Your task to perform on an android device: Search for "lenovo thinkpad" on ebay.com, select the first entry, and add it to the cart. Image 0: 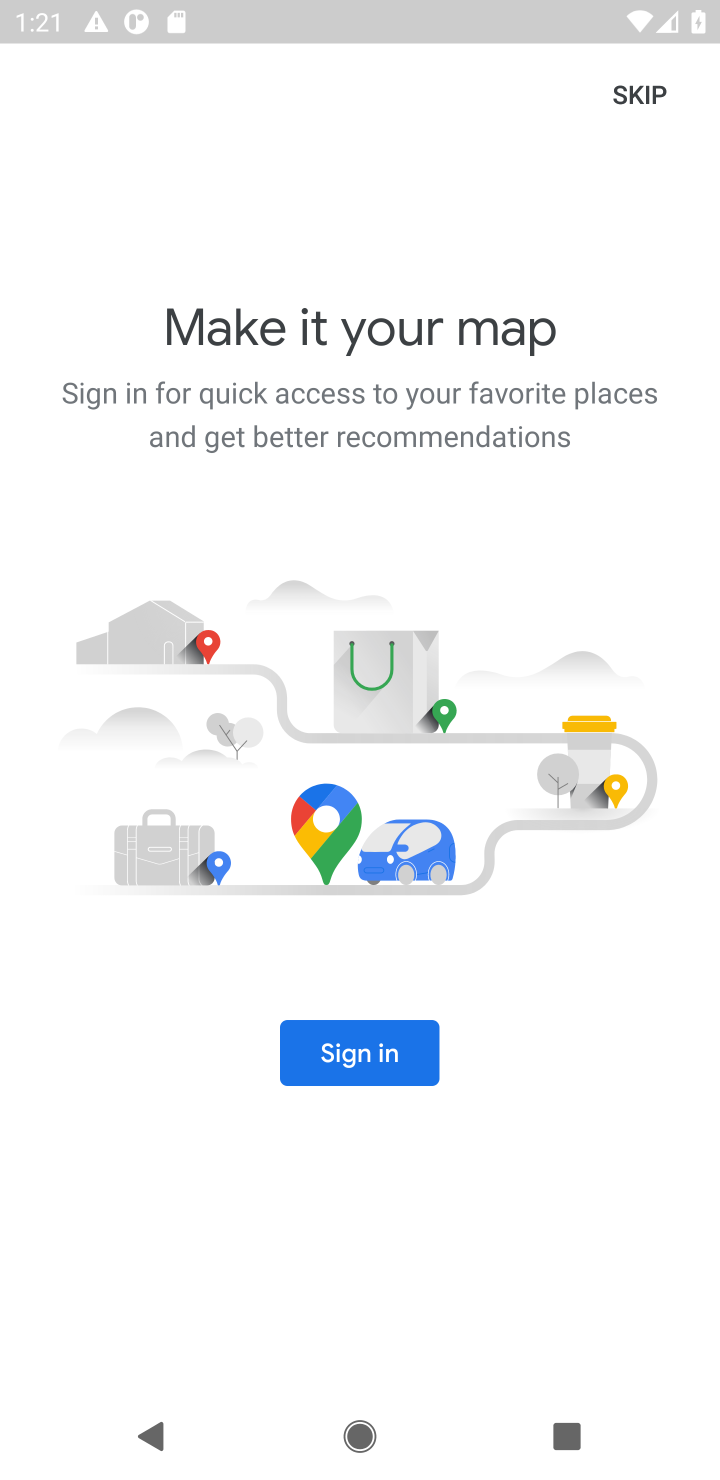
Step 0: press home button
Your task to perform on an android device: Search for "lenovo thinkpad" on ebay.com, select the first entry, and add it to the cart. Image 1: 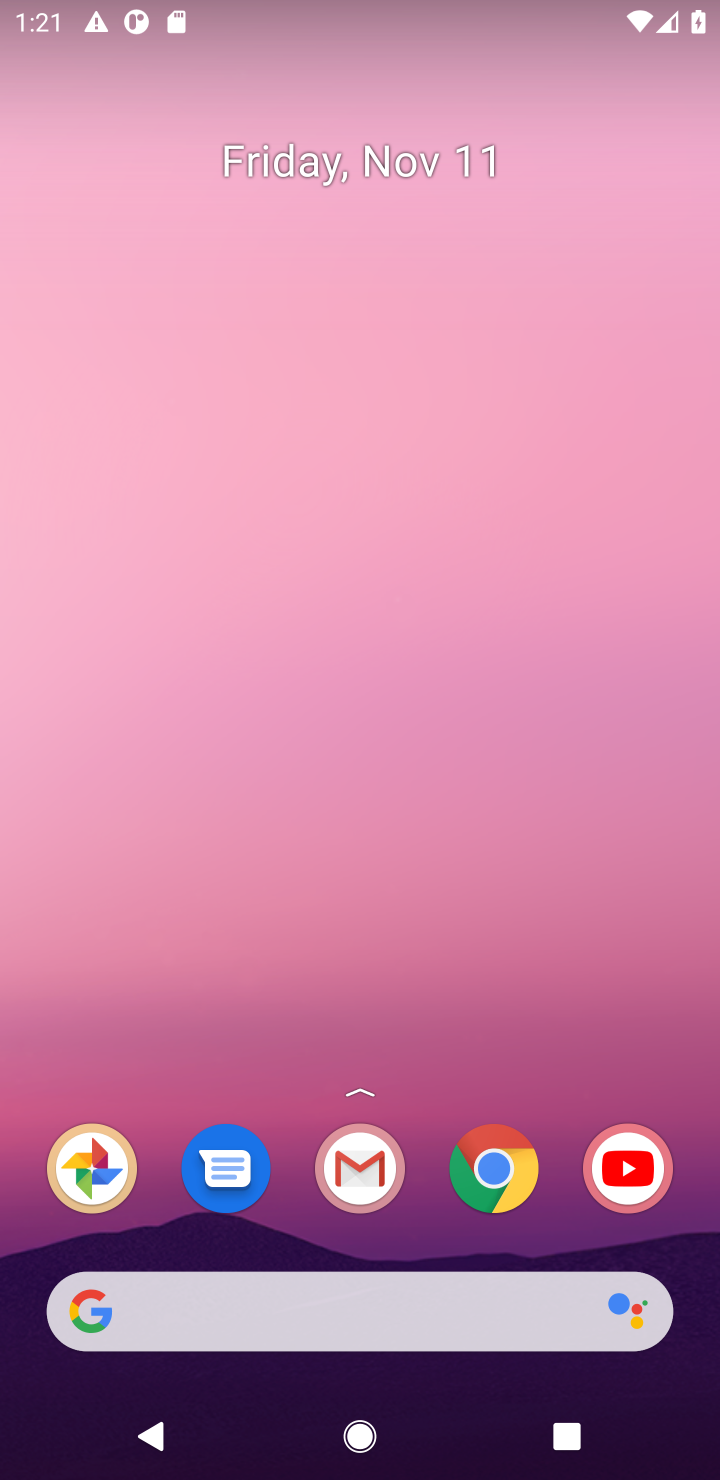
Step 1: press home button
Your task to perform on an android device: Search for "lenovo thinkpad" on ebay.com, select the first entry, and add it to the cart. Image 2: 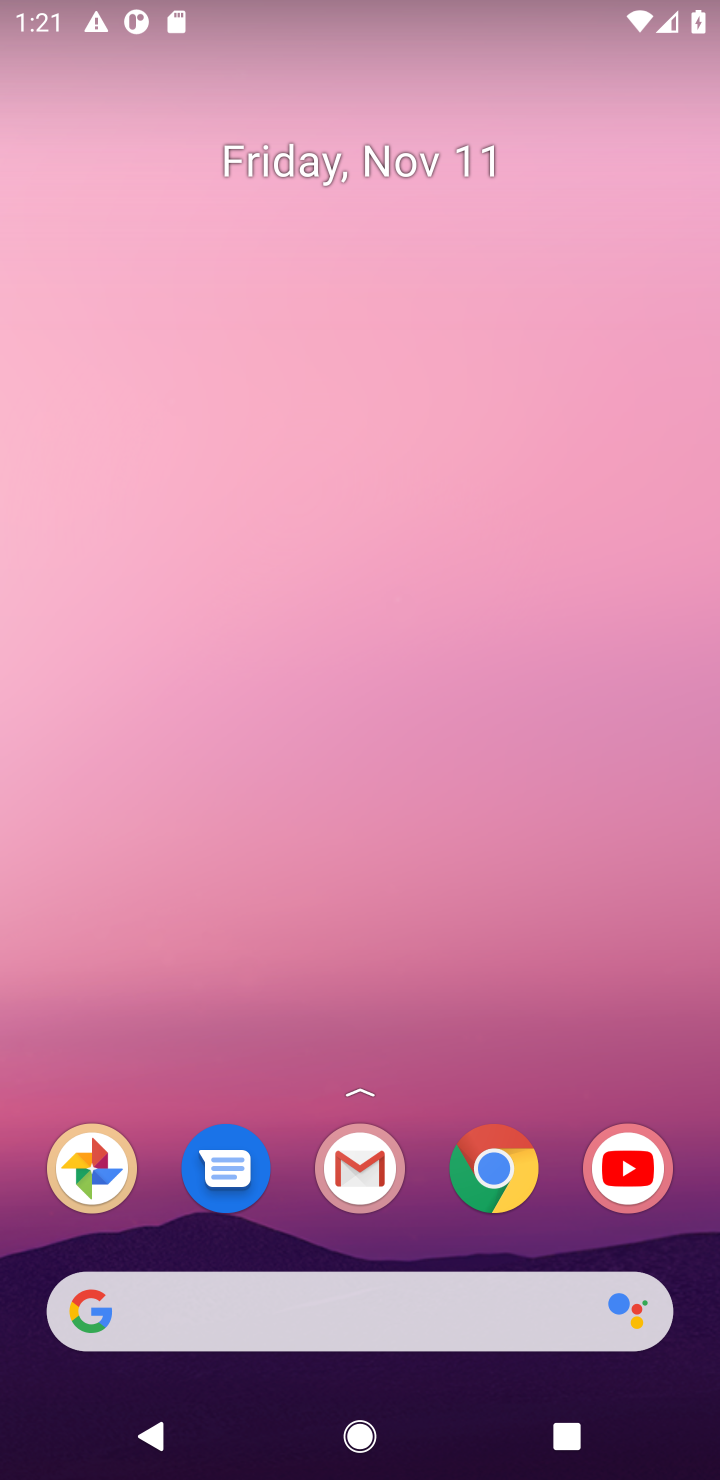
Step 2: click (510, 1177)
Your task to perform on an android device: Search for "lenovo thinkpad" on ebay.com, select the first entry, and add it to the cart. Image 3: 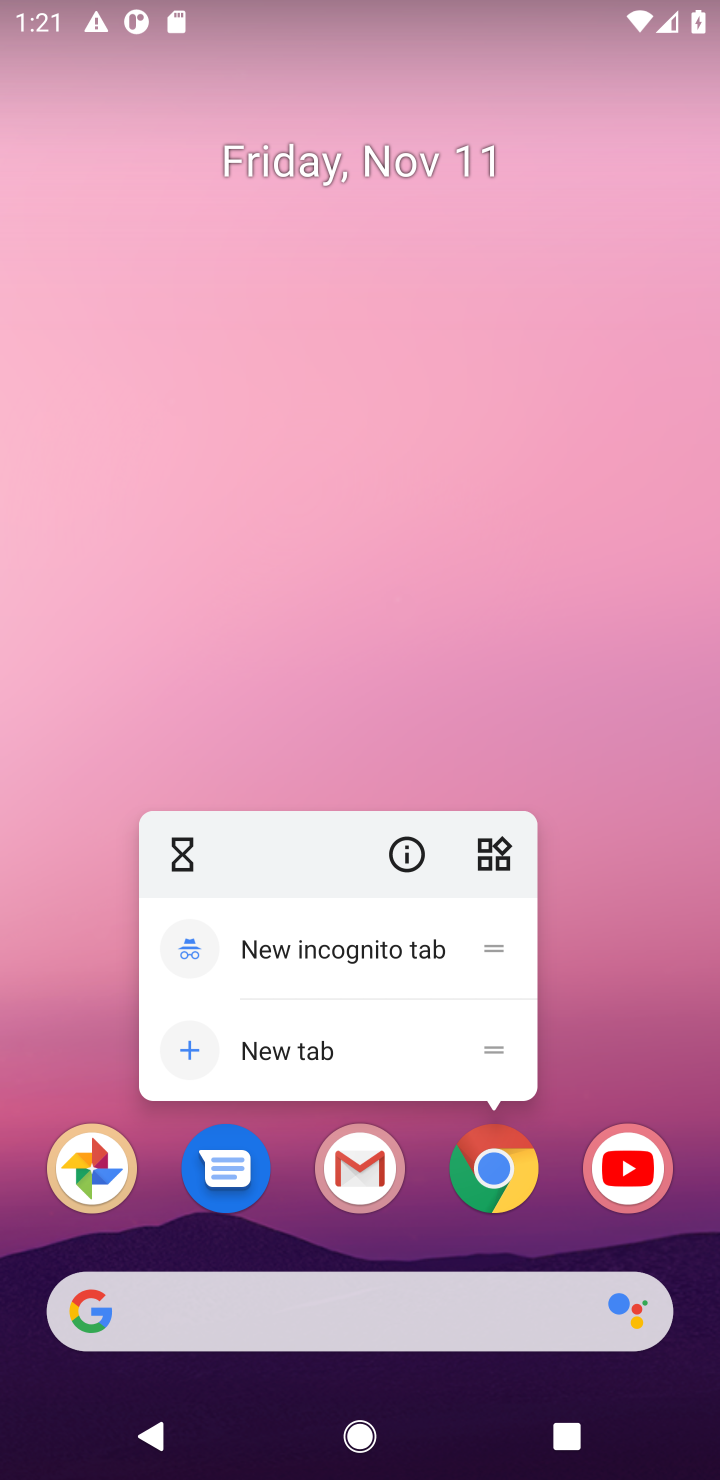
Step 3: click (510, 1177)
Your task to perform on an android device: Search for "lenovo thinkpad" on ebay.com, select the first entry, and add it to the cart. Image 4: 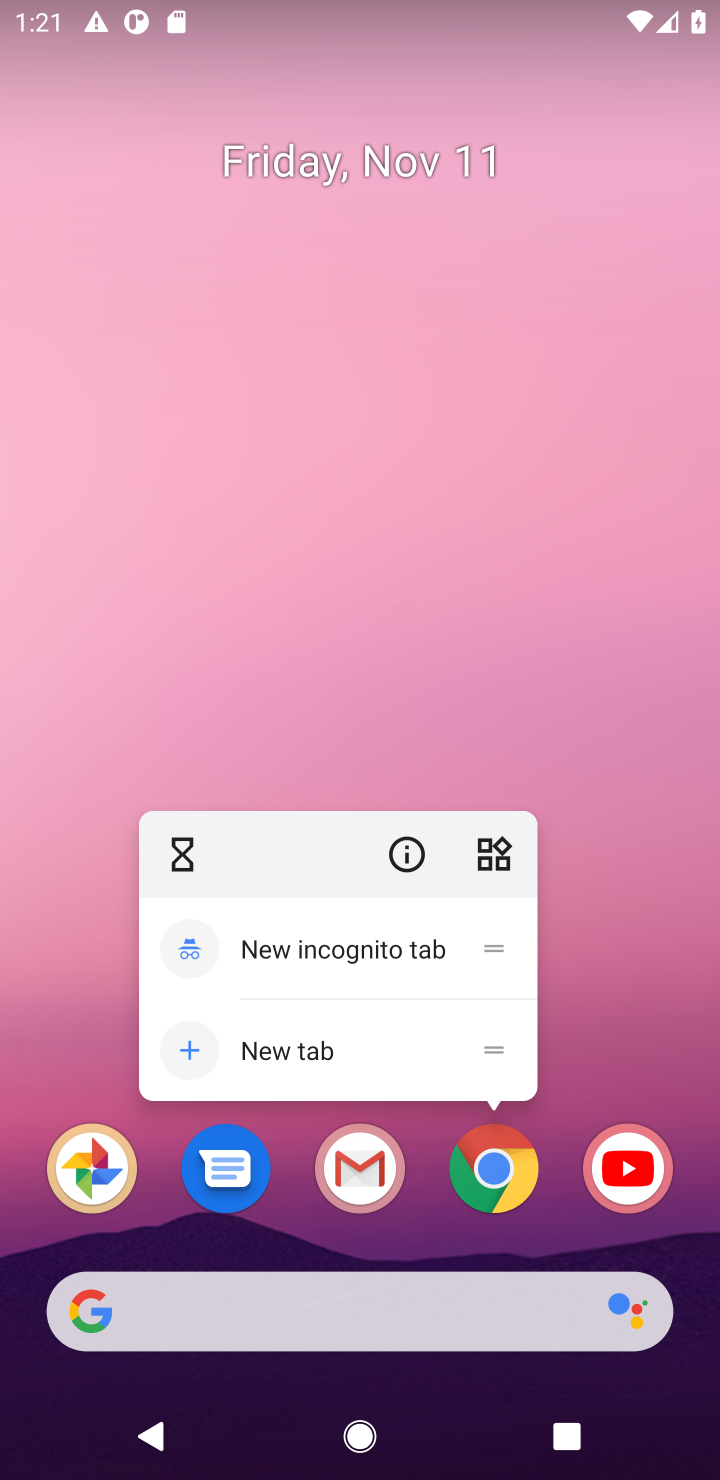
Step 4: click (503, 1182)
Your task to perform on an android device: Search for "lenovo thinkpad" on ebay.com, select the first entry, and add it to the cart. Image 5: 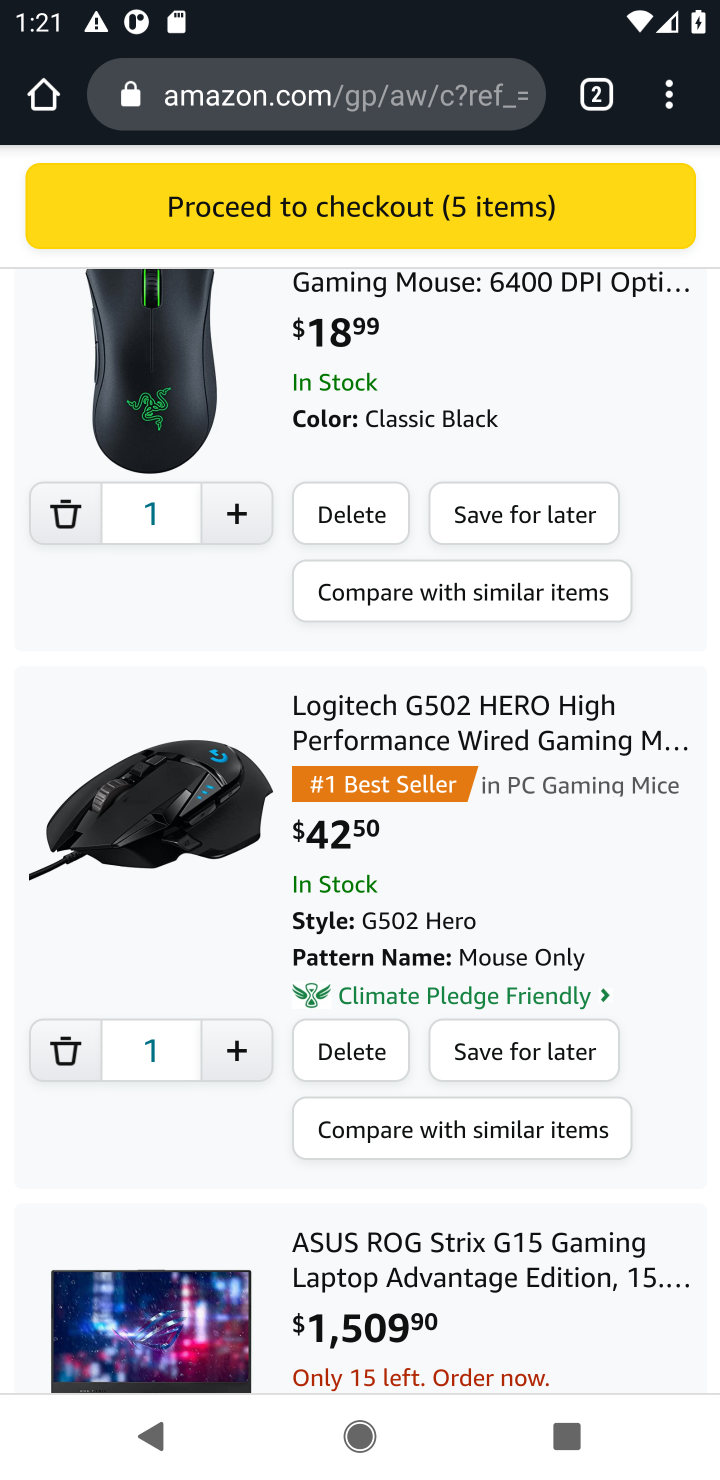
Step 5: click (314, 99)
Your task to perform on an android device: Search for "lenovo thinkpad" on ebay.com, select the first entry, and add it to the cart. Image 6: 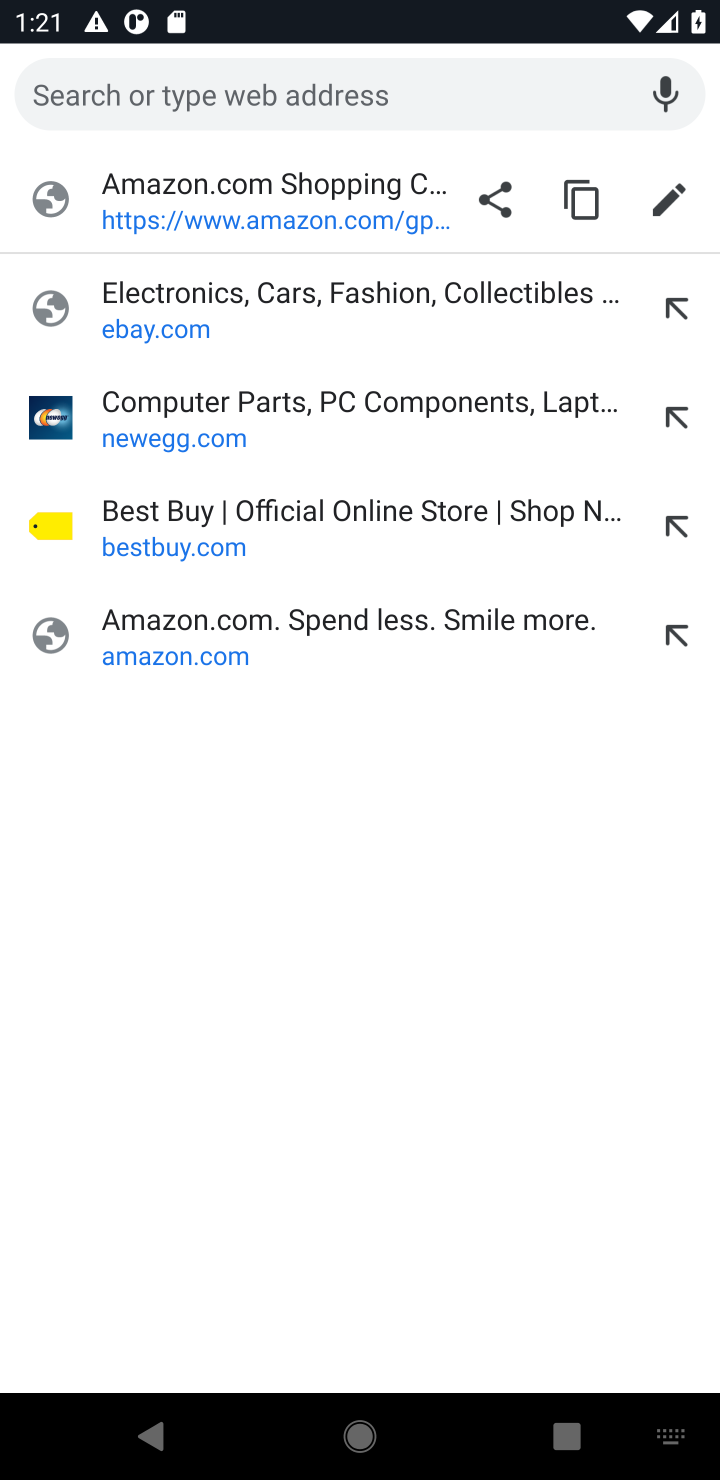
Step 6: click (158, 300)
Your task to perform on an android device: Search for "lenovo thinkpad" on ebay.com, select the first entry, and add it to the cart. Image 7: 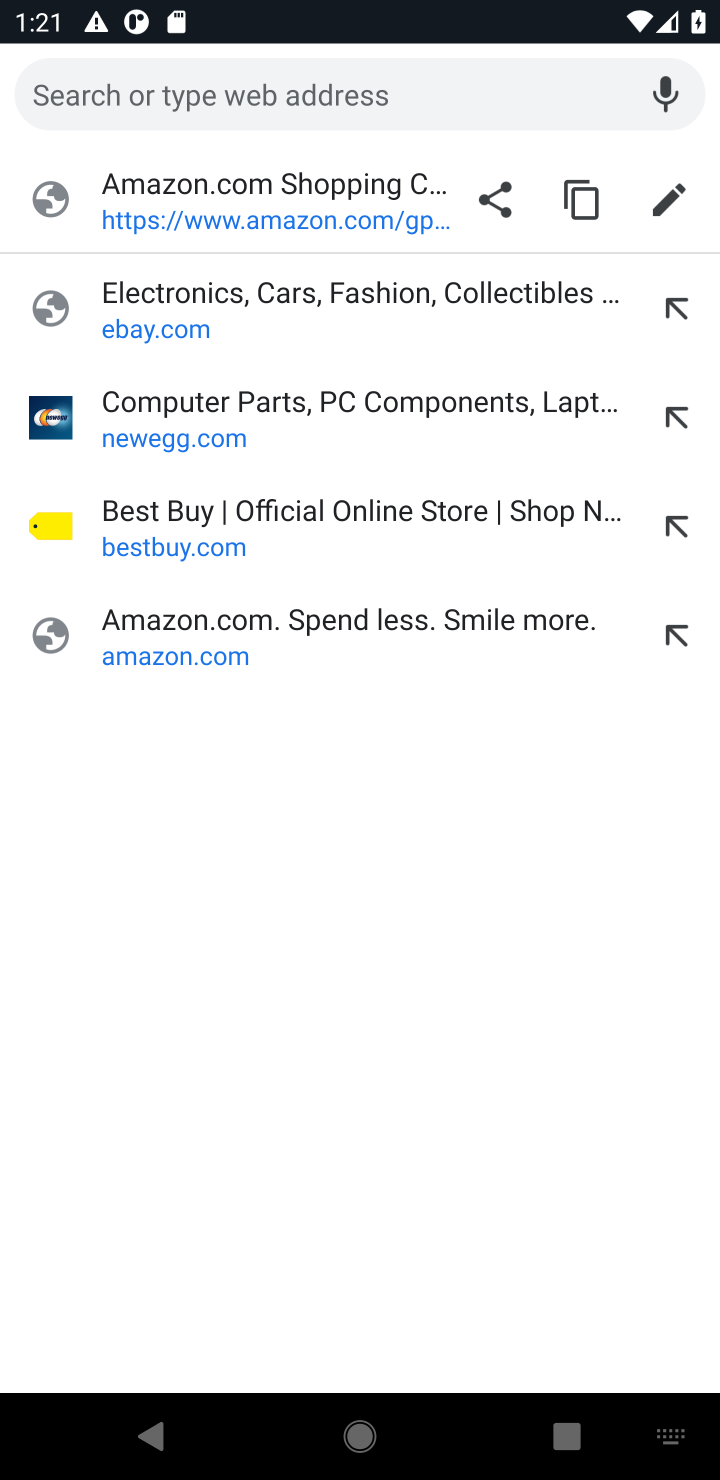
Step 7: click (151, 332)
Your task to perform on an android device: Search for "lenovo thinkpad" on ebay.com, select the first entry, and add it to the cart. Image 8: 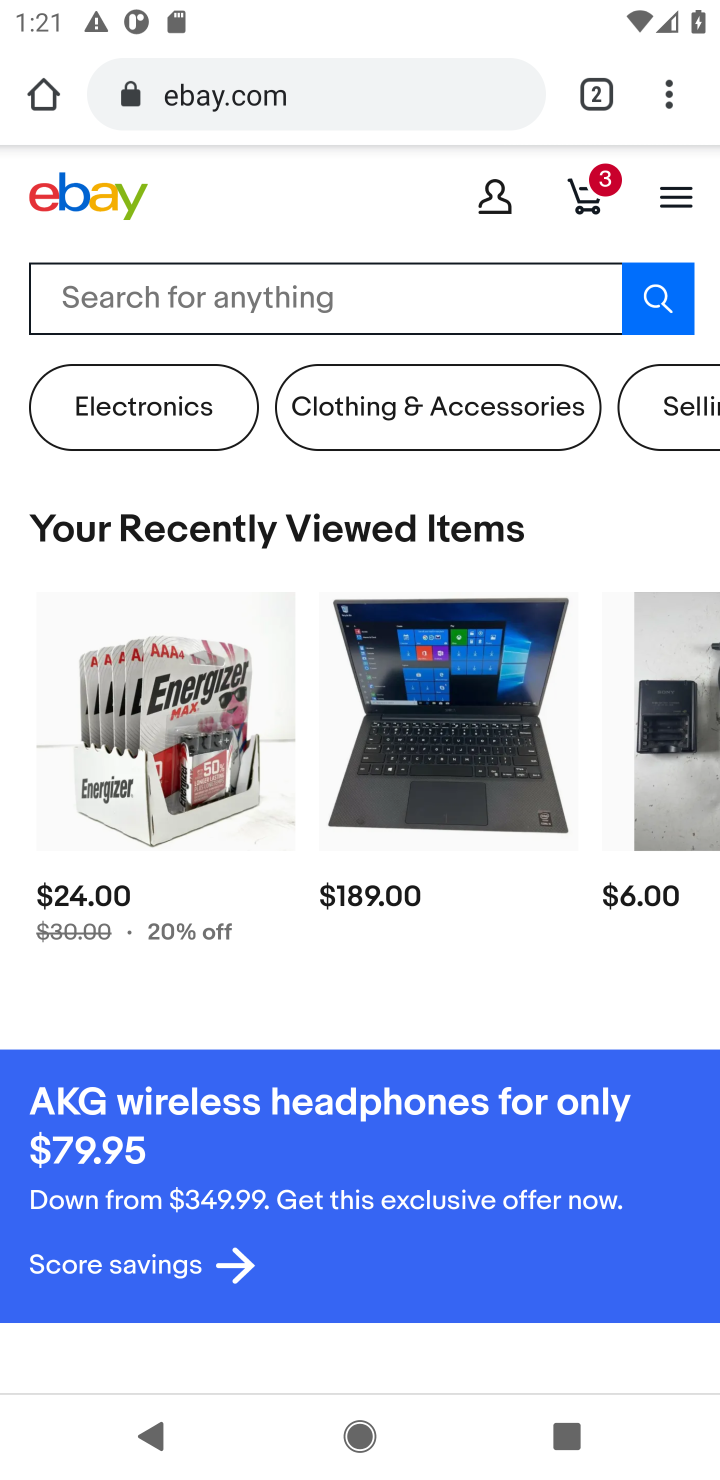
Step 8: click (149, 295)
Your task to perform on an android device: Search for "lenovo thinkpad" on ebay.com, select the first entry, and add it to the cart. Image 9: 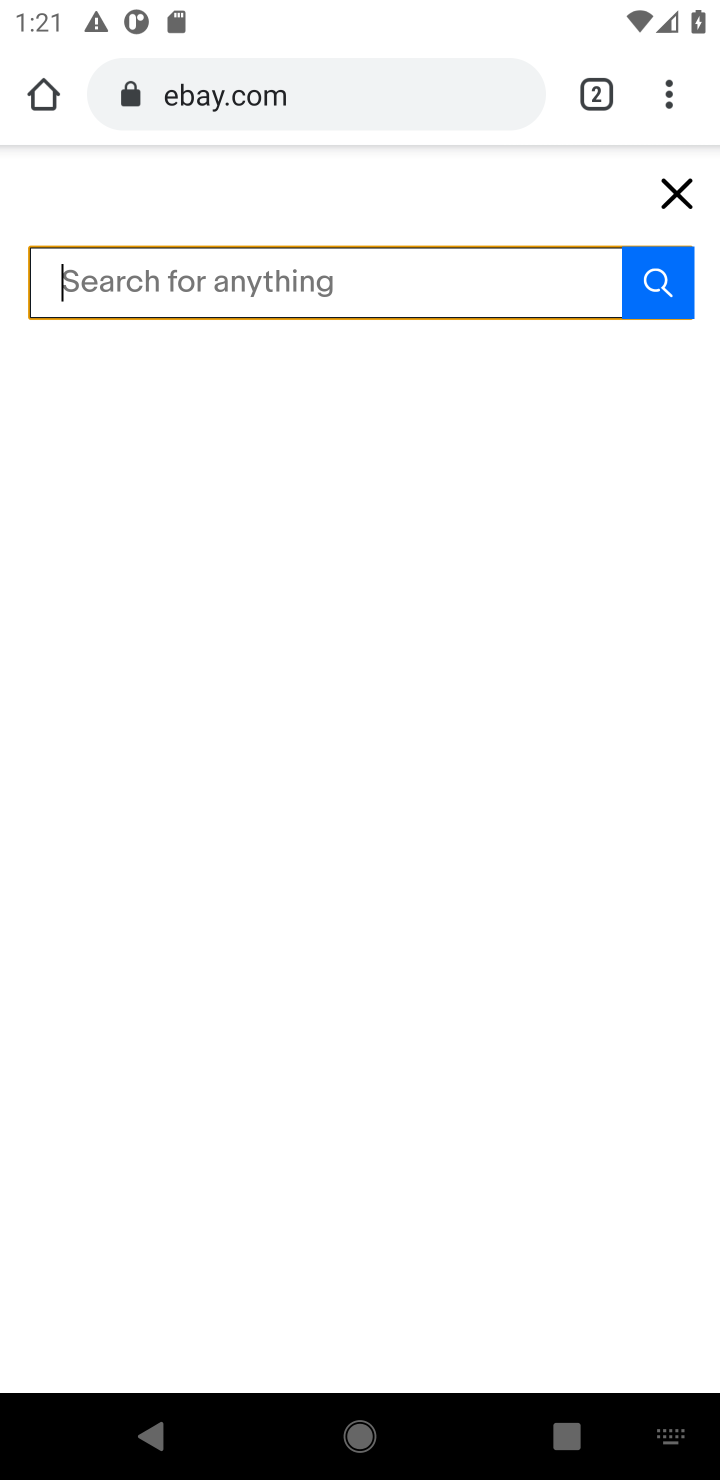
Step 9: type "lenovo thinkpad"
Your task to perform on an android device: Search for "lenovo thinkpad" on ebay.com, select the first entry, and add it to the cart. Image 10: 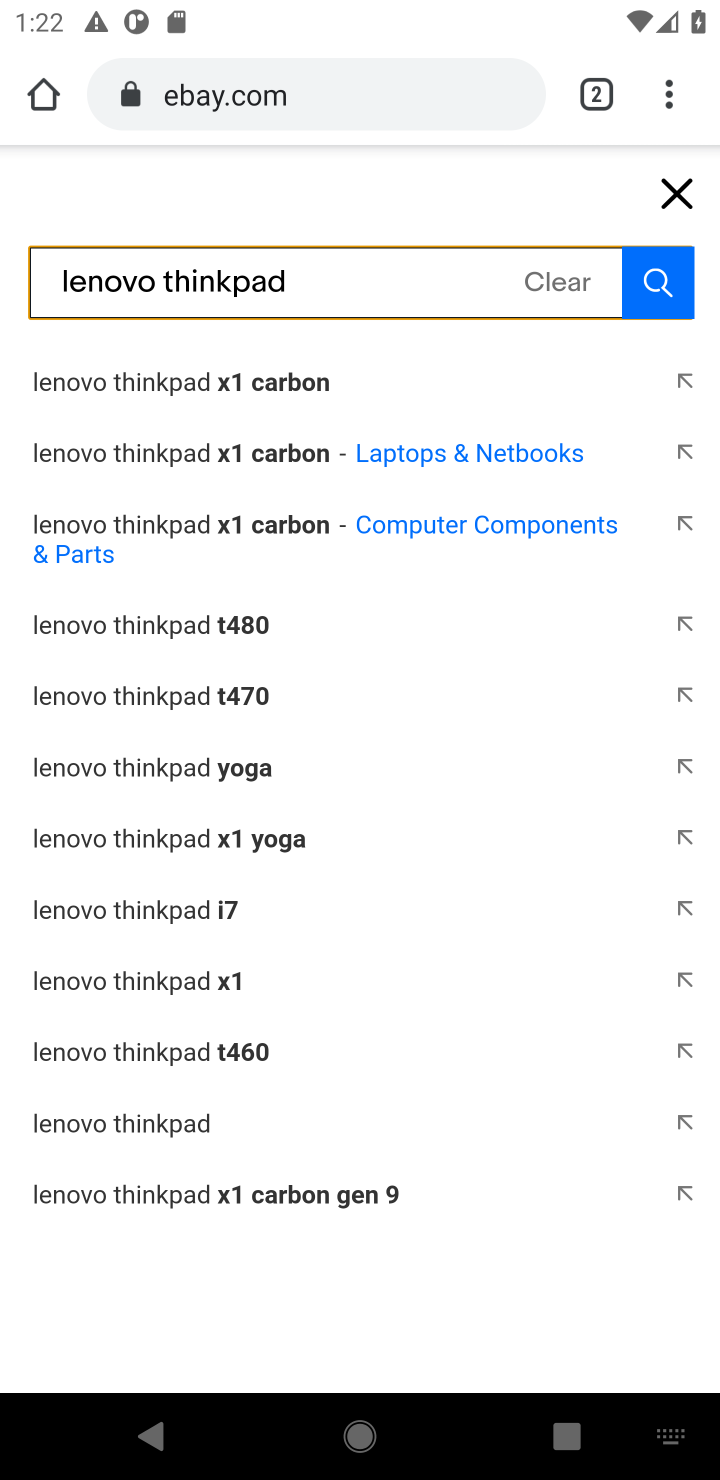
Step 10: click (82, 1135)
Your task to perform on an android device: Search for "lenovo thinkpad" on ebay.com, select the first entry, and add it to the cart. Image 11: 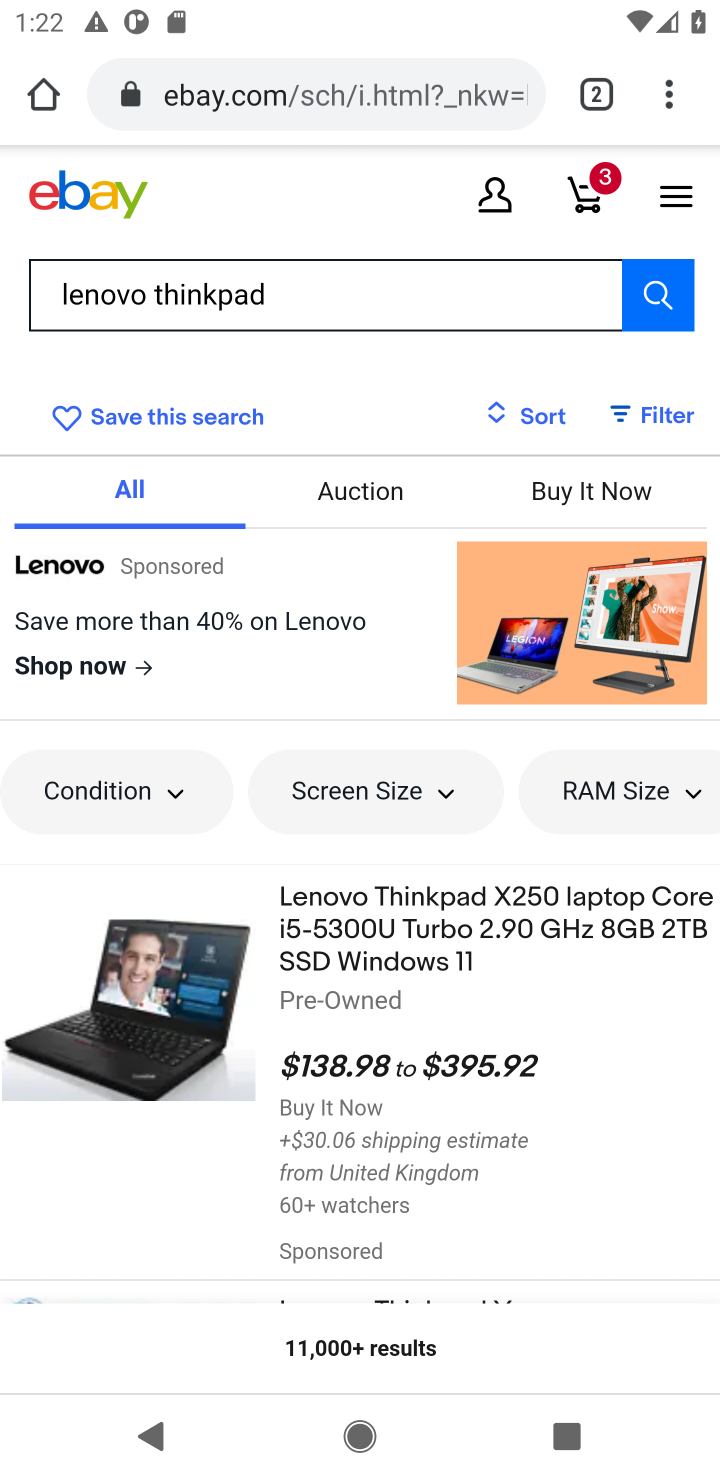
Step 11: drag from (254, 977) to (262, 600)
Your task to perform on an android device: Search for "lenovo thinkpad" on ebay.com, select the first entry, and add it to the cart. Image 12: 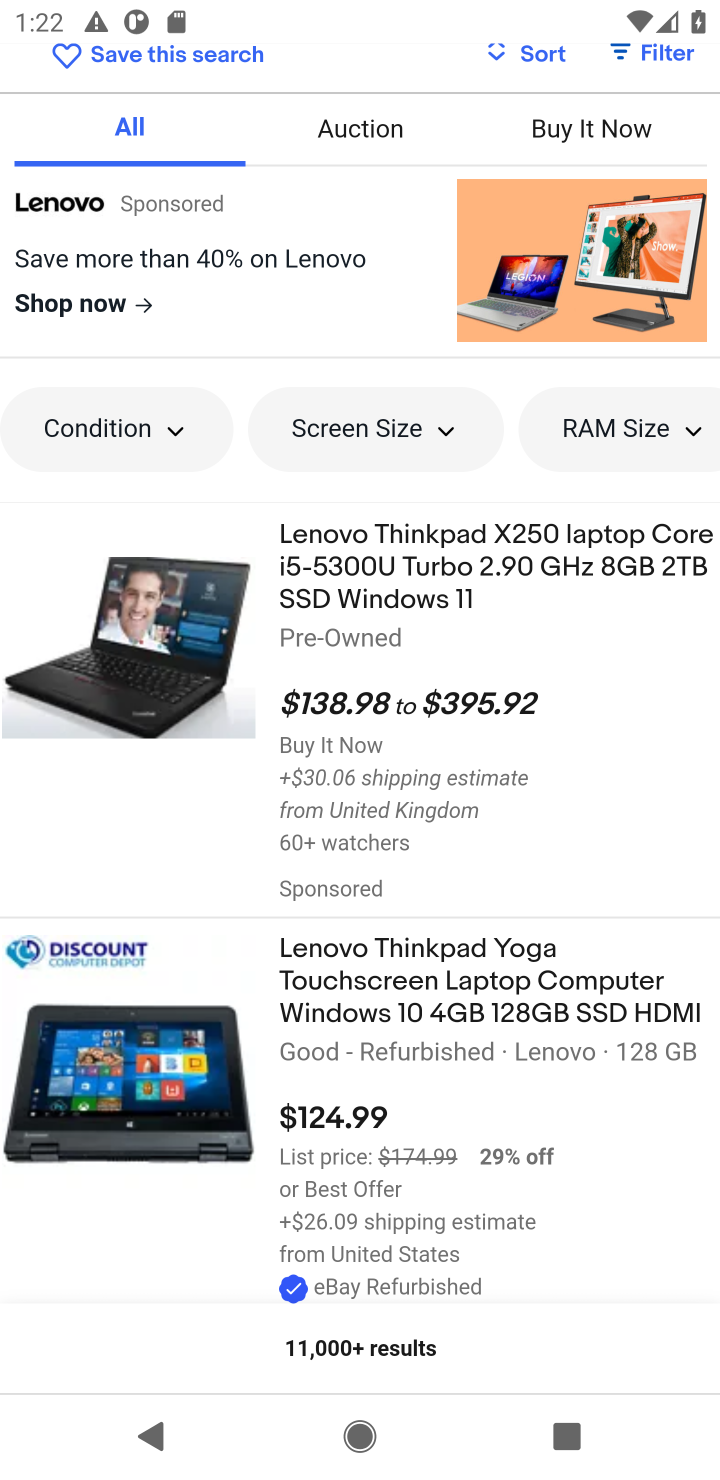
Step 12: click (136, 734)
Your task to perform on an android device: Search for "lenovo thinkpad" on ebay.com, select the first entry, and add it to the cart. Image 13: 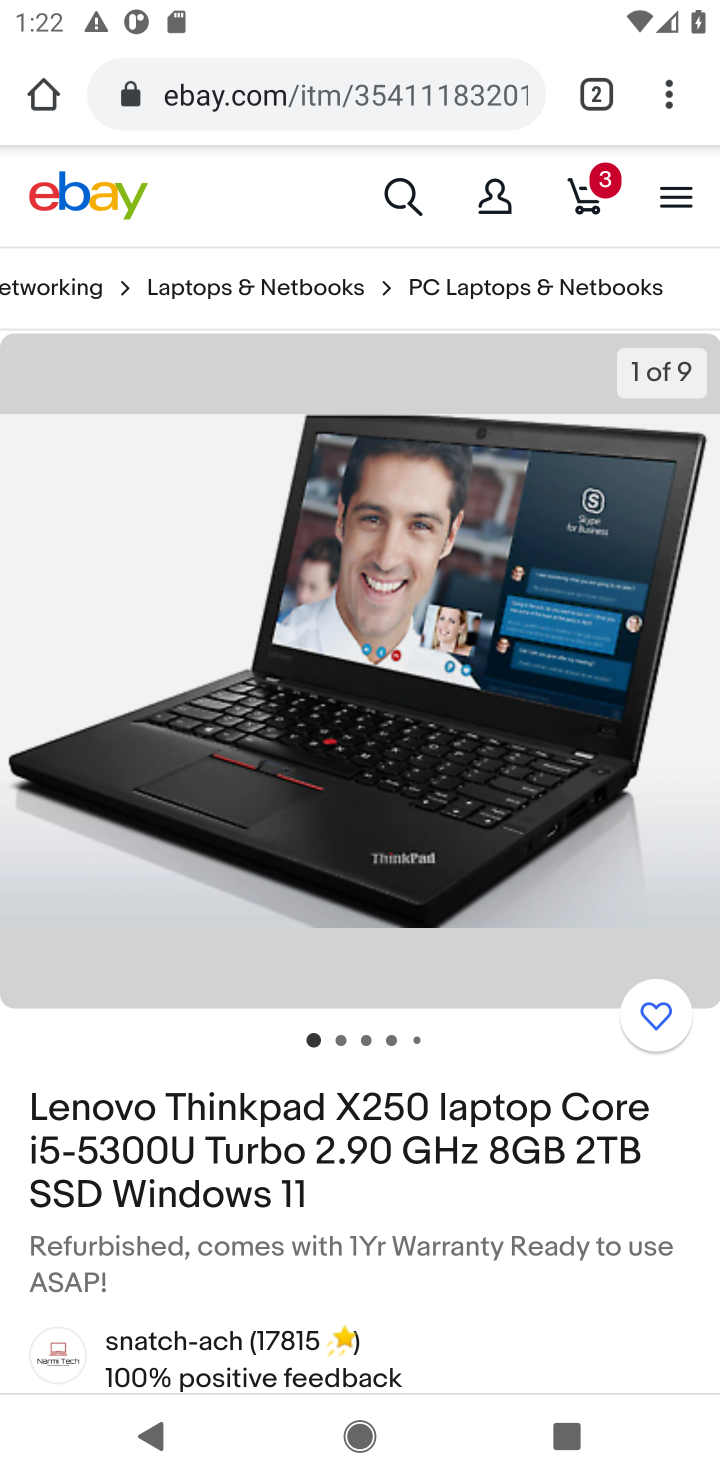
Step 13: drag from (219, 761) to (187, 475)
Your task to perform on an android device: Search for "lenovo thinkpad" on ebay.com, select the first entry, and add it to the cart. Image 14: 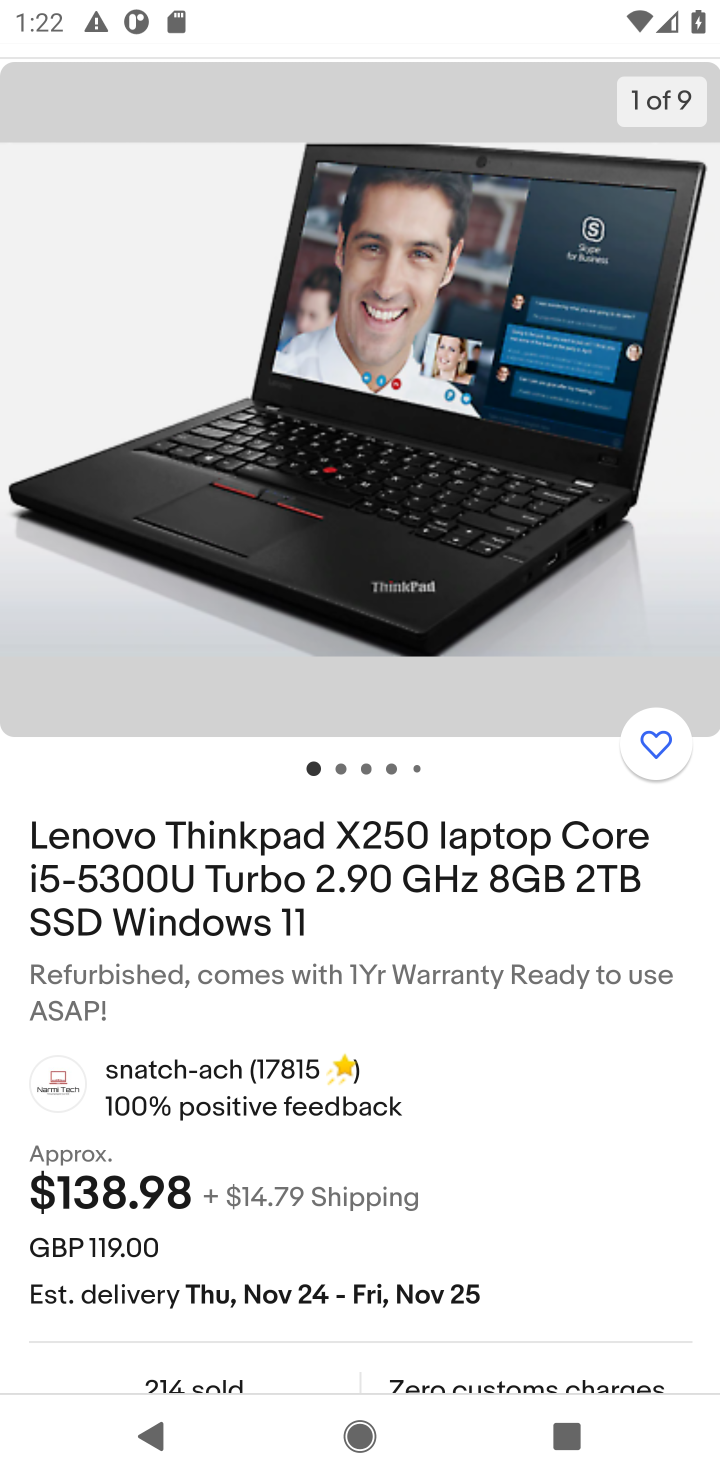
Step 14: drag from (495, 1105) to (410, 413)
Your task to perform on an android device: Search for "lenovo thinkpad" on ebay.com, select the first entry, and add it to the cart. Image 15: 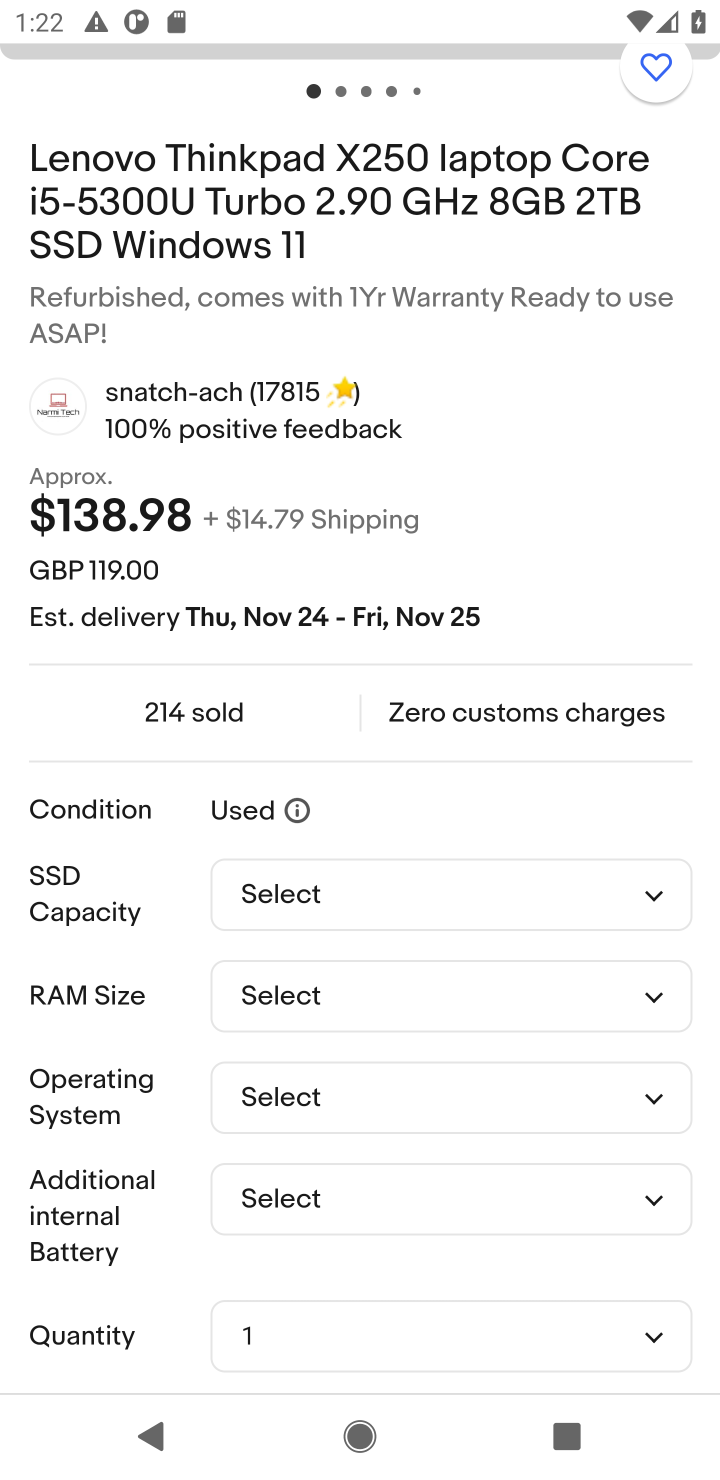
Step 15: click (645, 898)
Your task to perform on an android device: Search for "lenovo thinkpad" on ebay.com, select the first entry, and add it to the cart. Image 16: 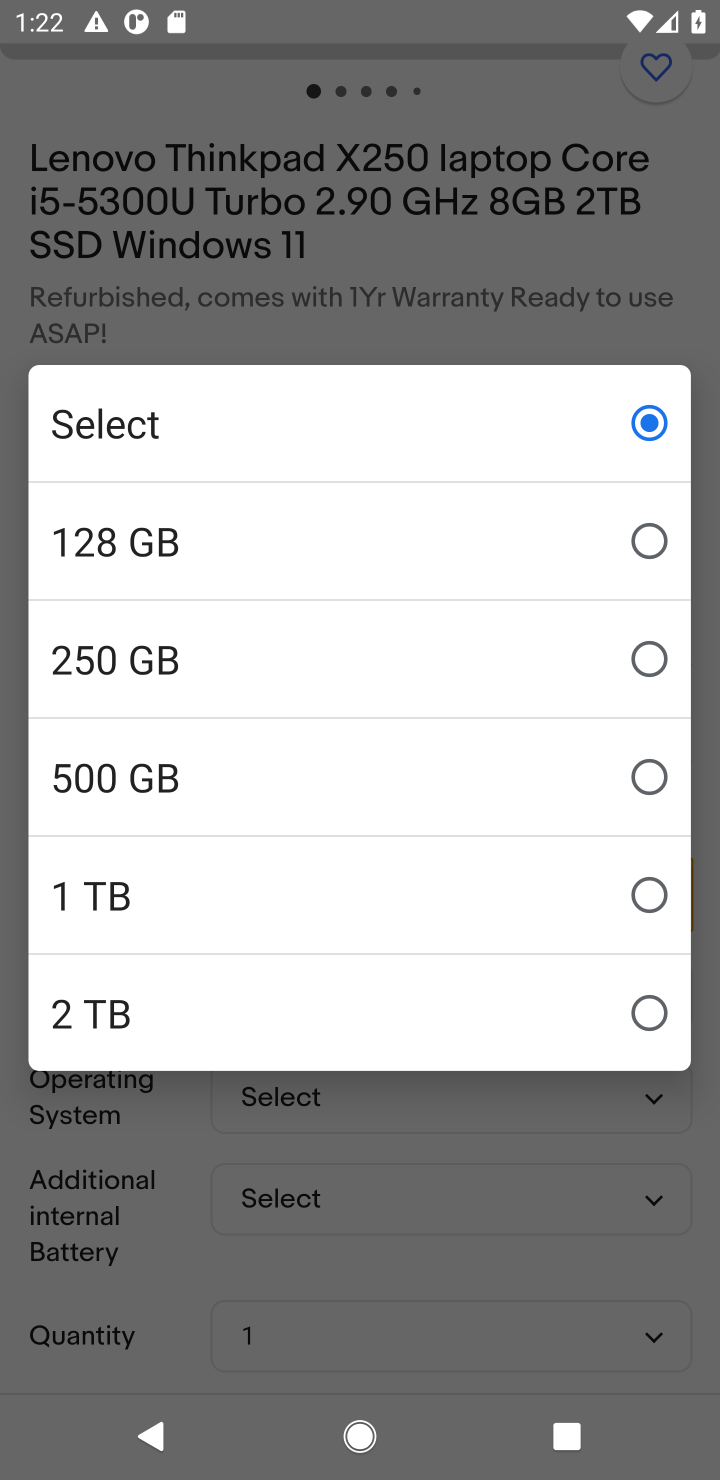
Step 16: click (83, 548)
Your task to perform on an android device: Search for "lenovo thinkpad" on ebay.com, select the first entry, and add it to the cart. Image 17: 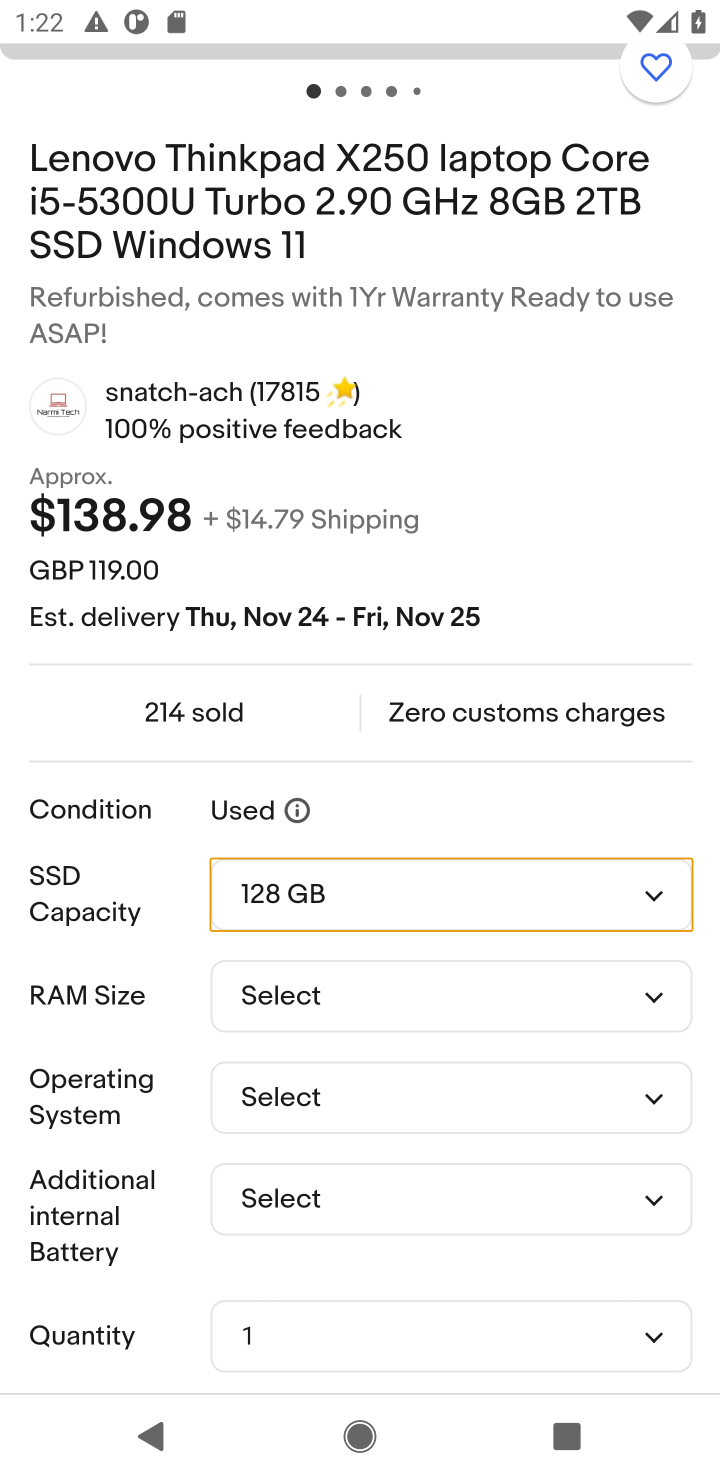
Step 17: click (647, 1001)
Your task to perform on an android device: Search for "lenovo thinkpad" on ebay.com, select the first entry, and add it to the cart. Image 18: 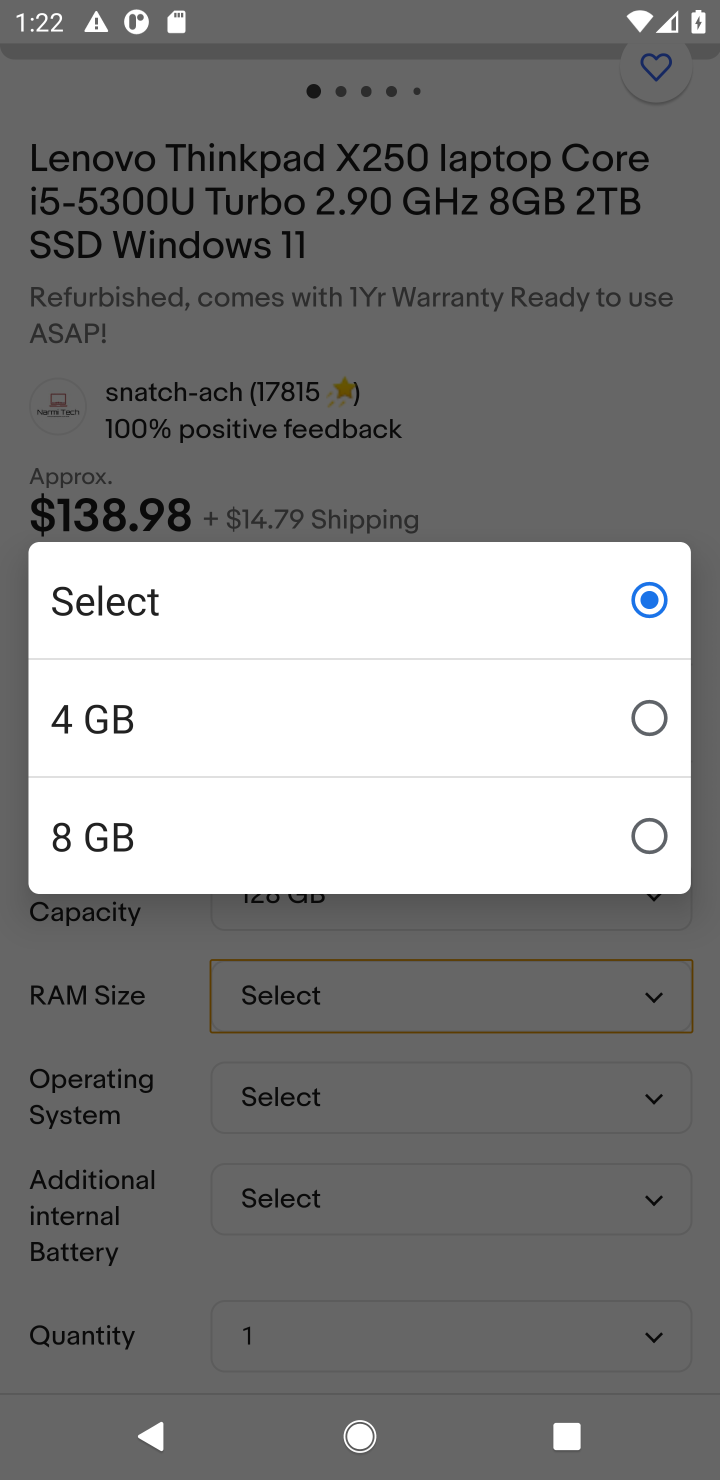
Step 18: click (86, 707)
Your task to perform on an android device: Search for "lenovo thinkpad" on ebay.com, select the first entry, and add it to the cart. Image 19: 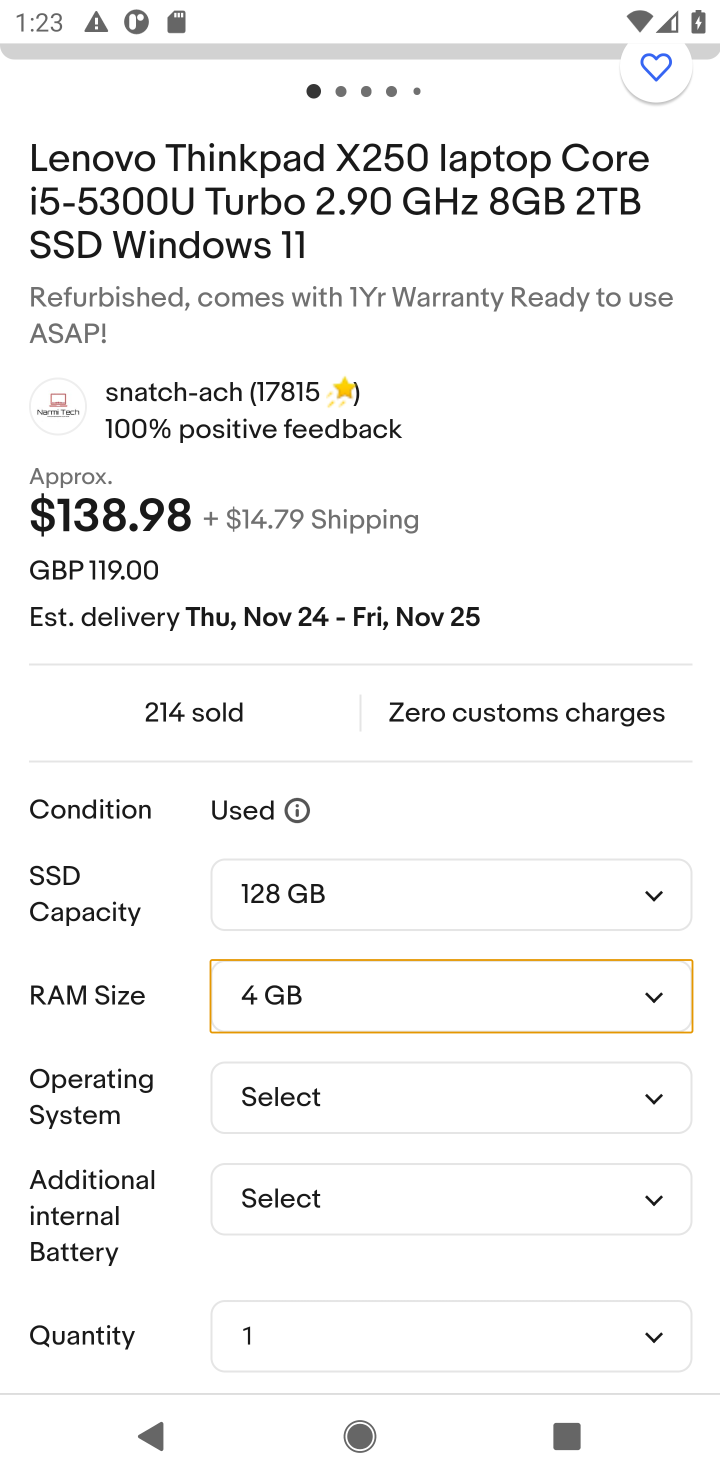
Step 19: click (643, 1100)
Your task to perform on an android device: Search for "lenovo thinkpad" on ebay.com, select the first entry, and add it to the cart. Image 20: 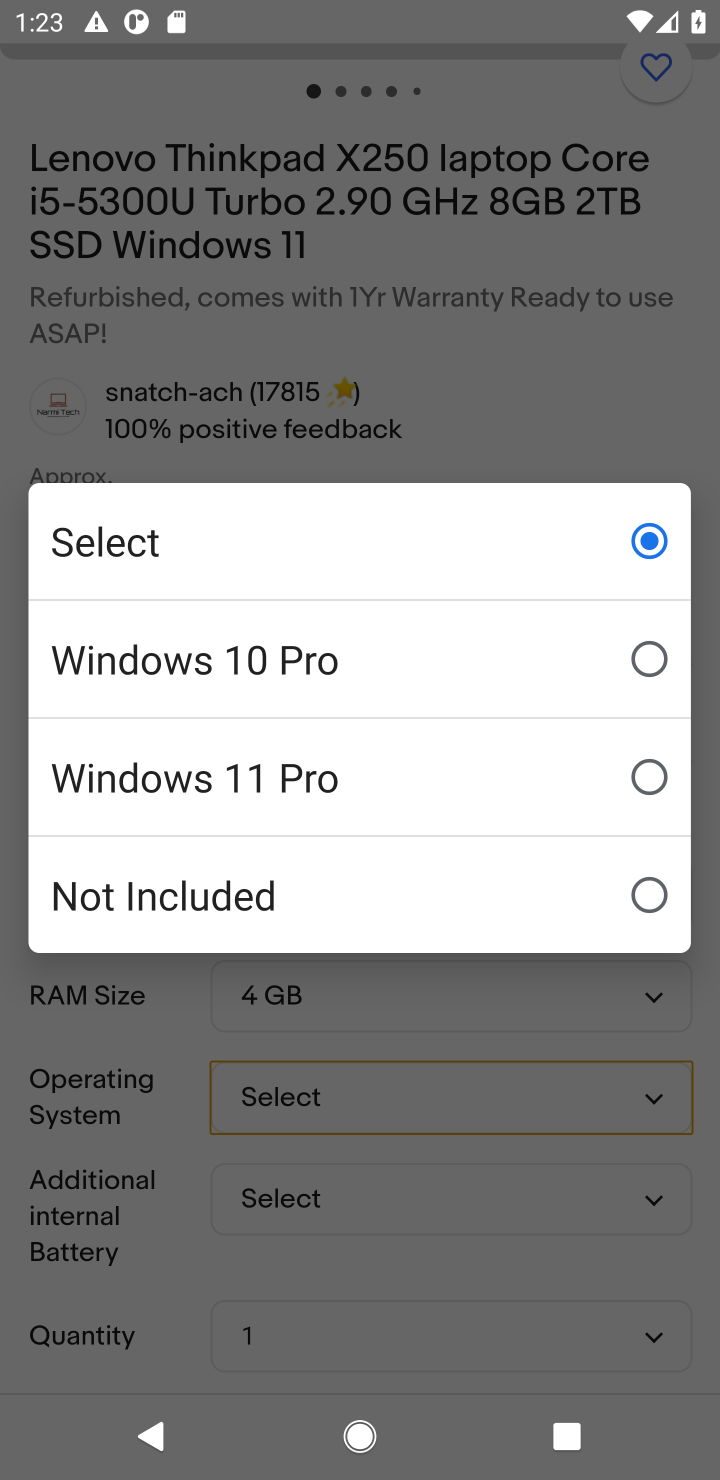
Step 20: click (195, 803)
Your task to perform on an android device: Search for "lenovo thinkpad" on ebay.com, select the first entry, and add it to the cart. Image 21: 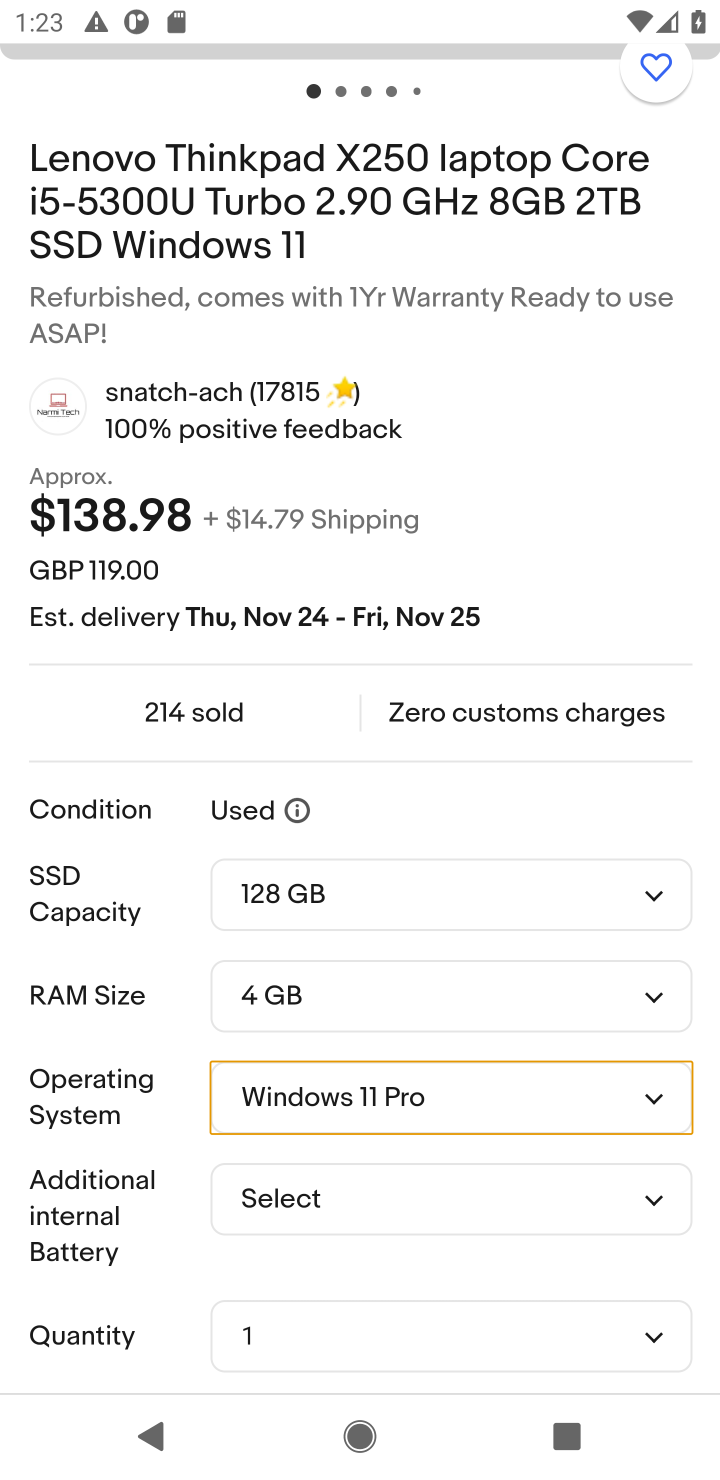
Step 21: click (650, 1204)
Your task to perform on an android device: Search for "lenovo thinkpad" on ebay.com, select the first entry, and add it to the cart. Image 22: 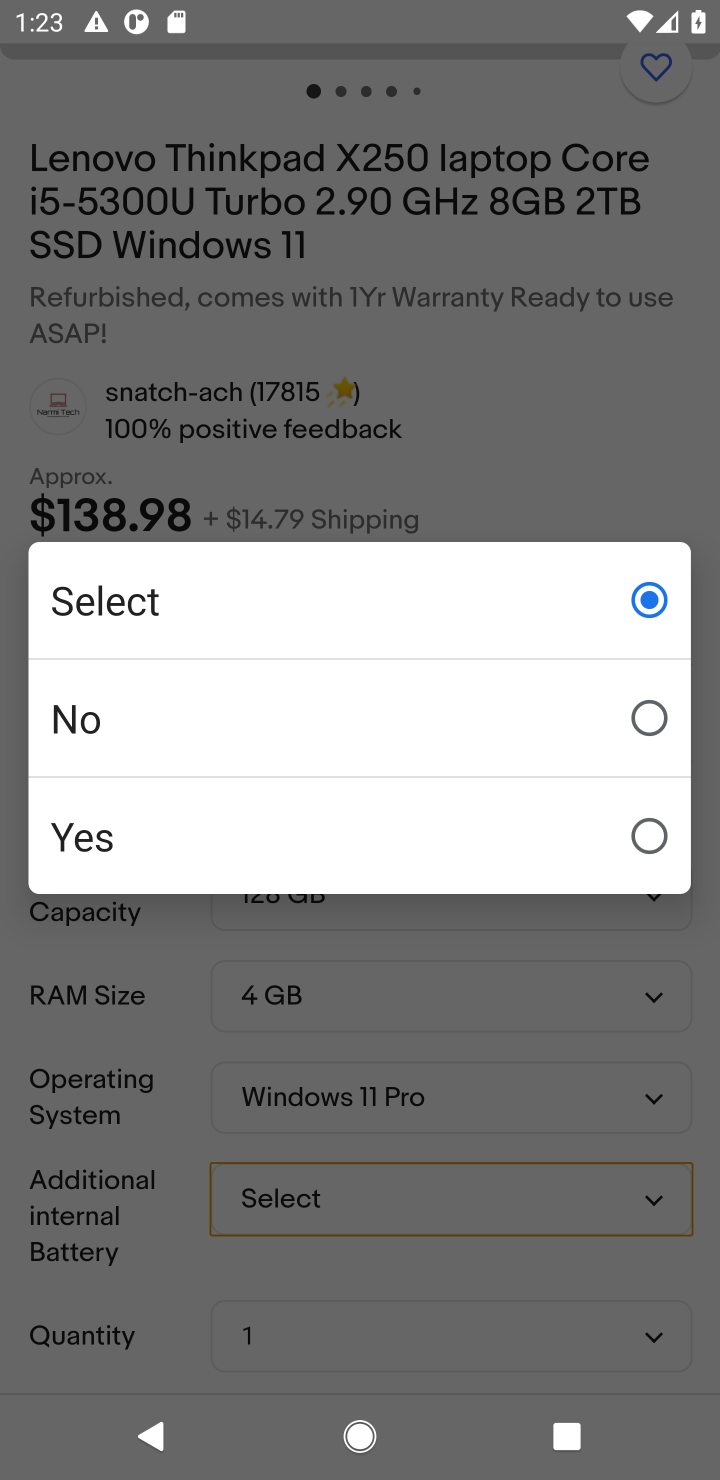
Step 22: click (198, 728)
Your task to perform on an android device: Search for "lenovo thinkpad" on ebay.com, select the first entry, and add it to the cart. Image 23: 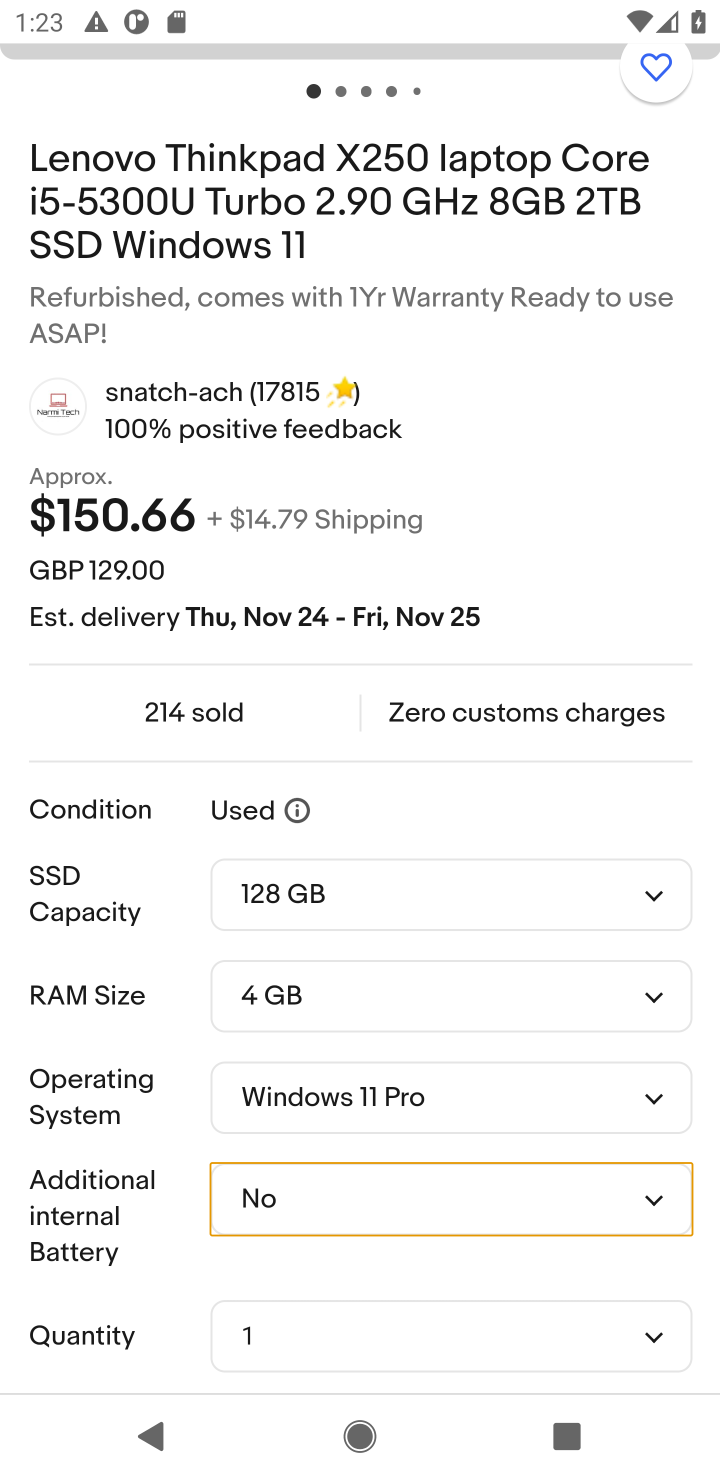
Step 23: drag from (477, 1249) to (455, 731)
Your task to perform on an android device: Search for "lenovo thinkpad" on ebay.com, select the first entry, and add it to the cart. Image 24: 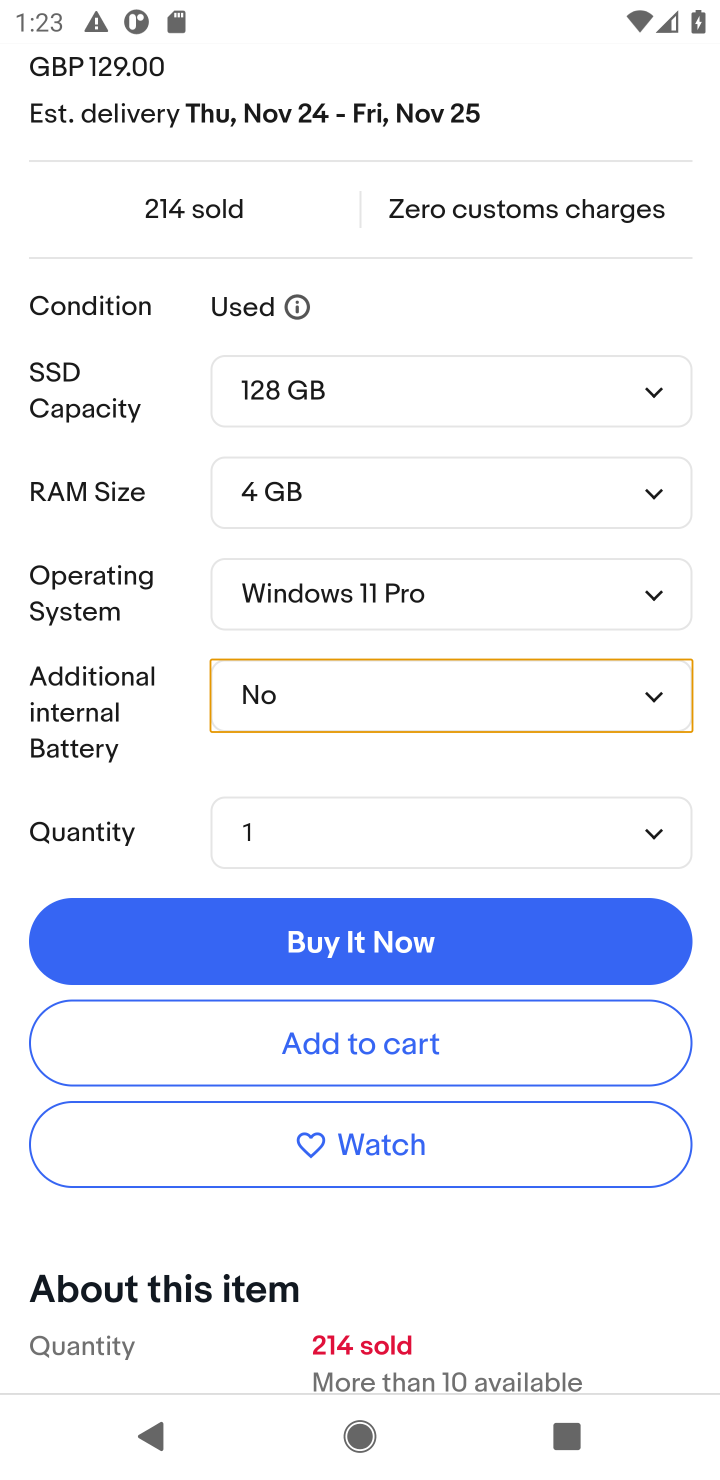
Step 24: click (338, 1031)
Your task to perform on an android device: Search for "lenovo thinkpad" on ebay.com, select the first entry, and add it to the cart. Image 25: 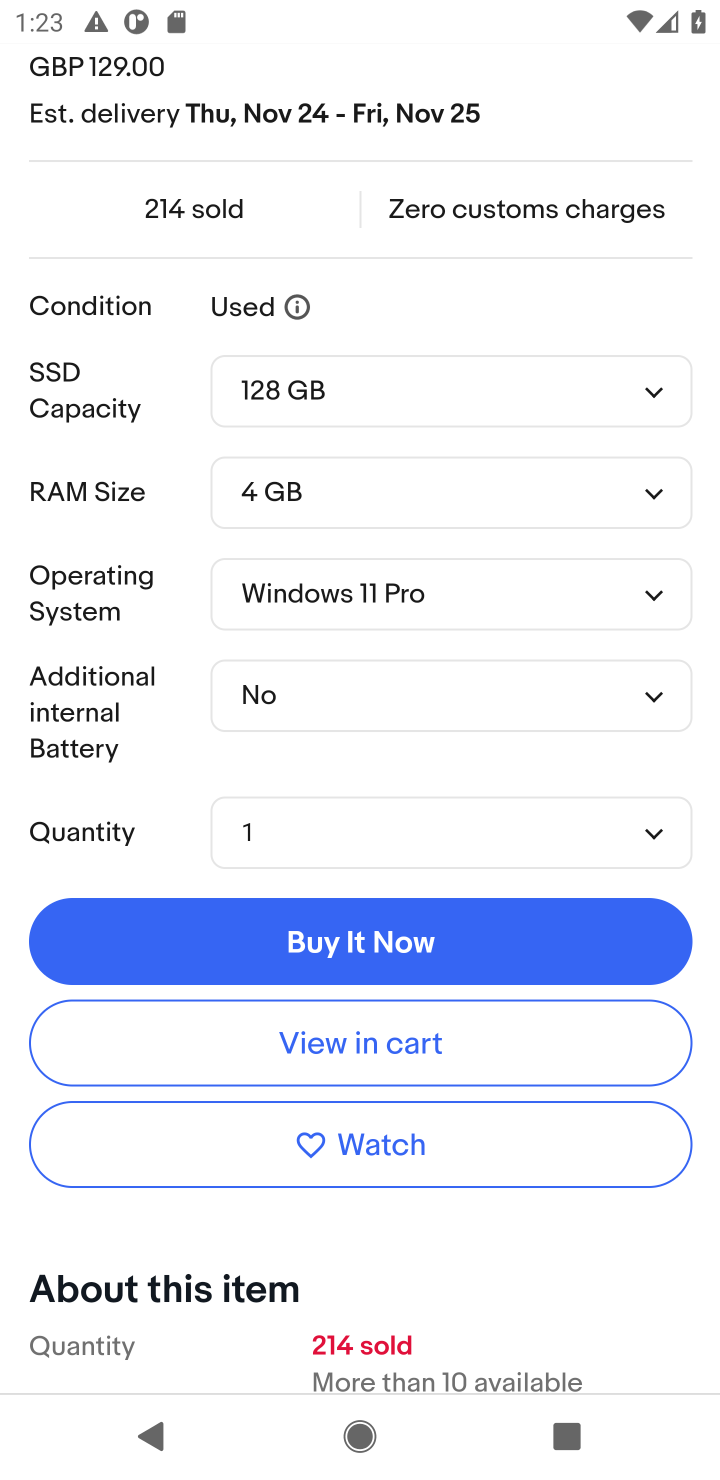
Step 25: task complete